Your task to perform on an android device: turn on bluetooth scan Image 0: 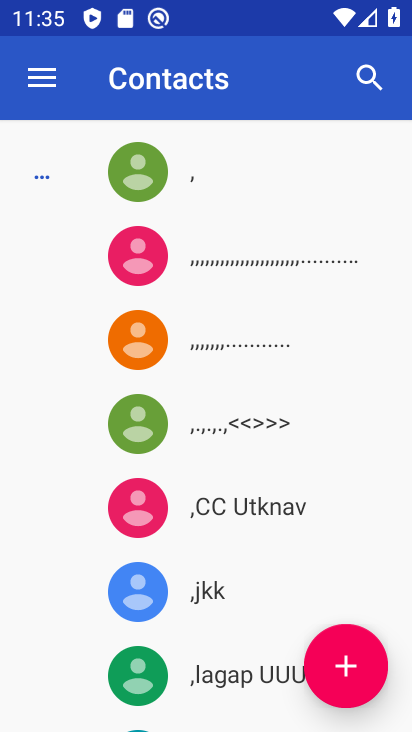
Step 0: press home button
Your task to perform on an android device: turn on bluetooth scan Image 1: 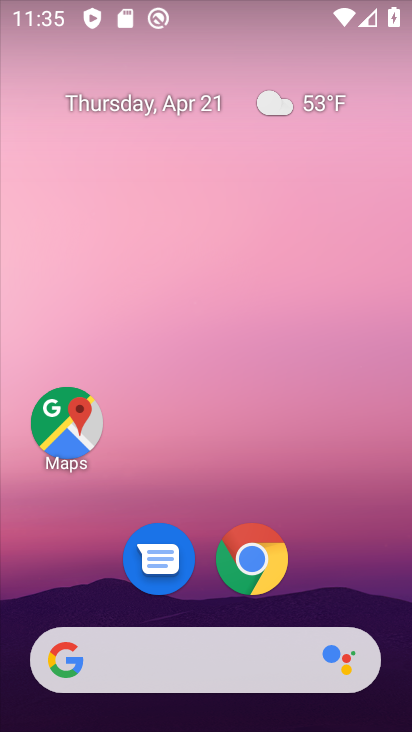
Step 1: drag from (350, 584) to (348, 2)
Your task to perform on an android device: turn on bluetooth scan Image 2: 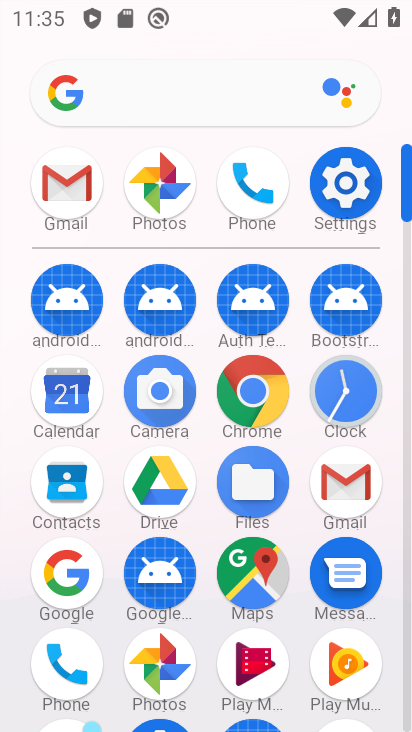
Step 2: click (350, 175)
Your task to perform on an android device: turn on bluetooth scan Image 3: 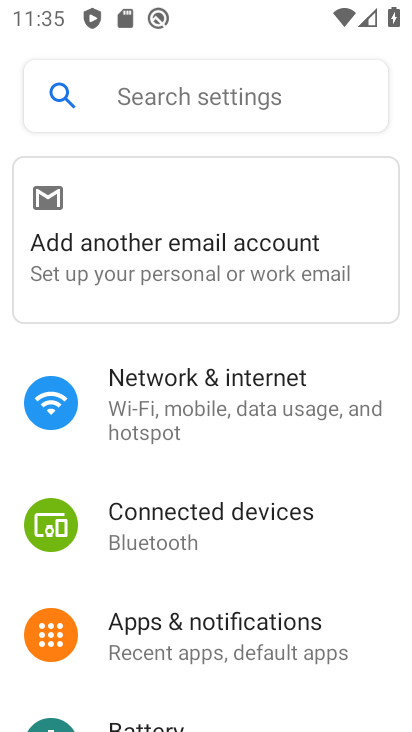
Step 3: drag from (332, 531) to (316, 61)
Your task to perform on an android device: turn on bluetooth scan Image 4: 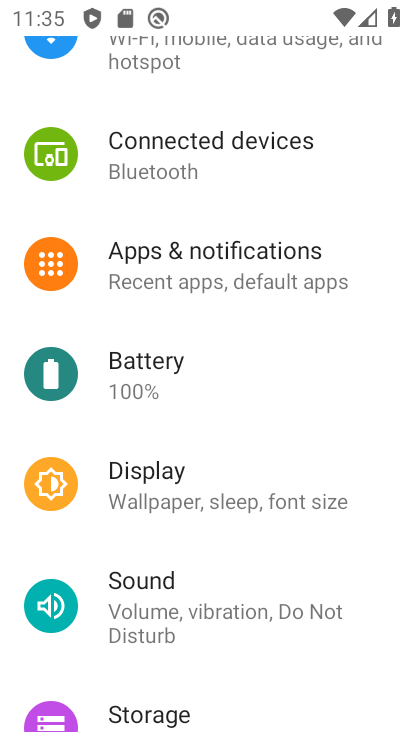
Step 4: drag from (320, 423) to (306, 112)
Your task to perform on an android device: turn on bluetooth scan Image 5: 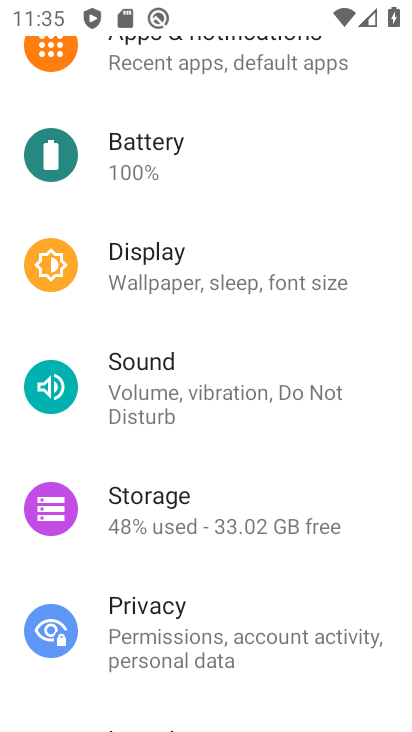
Step 5: drag from (240, 592) to (228, 194)
Your task to perform on an android device: turn on bluetooth scan Image 6: 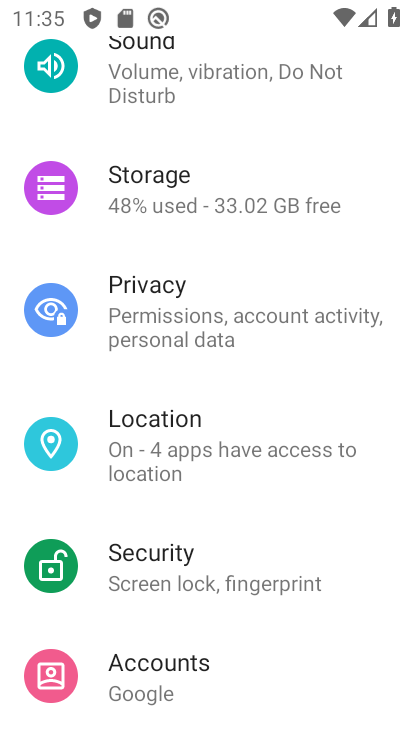
Step 6: click (149, 432)
Your task to perform on an android device: turn on bluetooth scan Image 7: 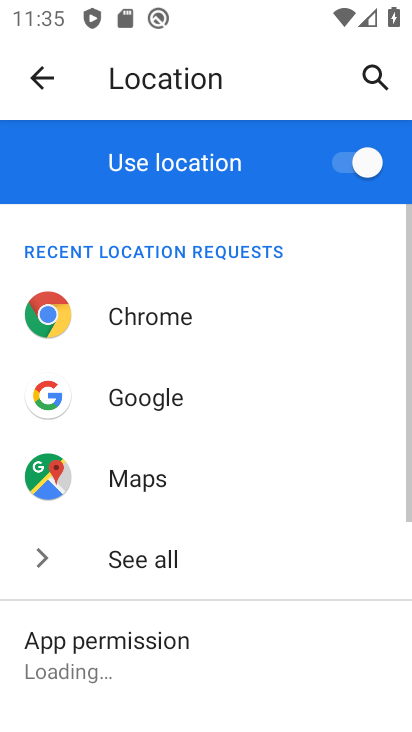
Step 7: drag from (295, 589) to (274, 141)
Your task to perform on an android device: turn on bluetooth scan Image 8: 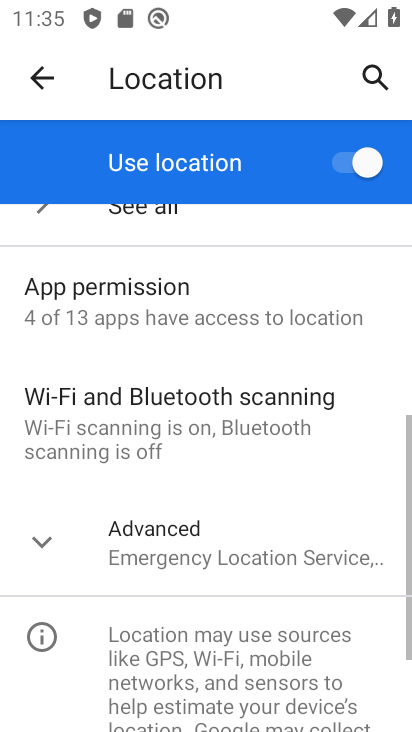
Step 8: click (109, 449)
Your task to perform on an android device: turn on bluetooth scan Image 9: 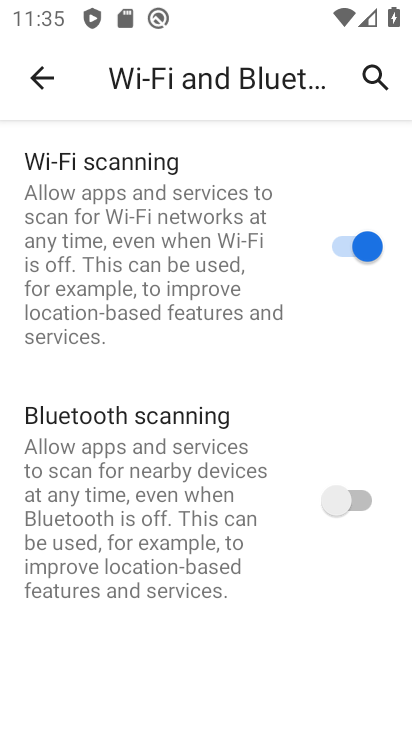
Step 9: click (333, 503)
Your task to perform on an android device: turn on bluetooth scan Image 10: 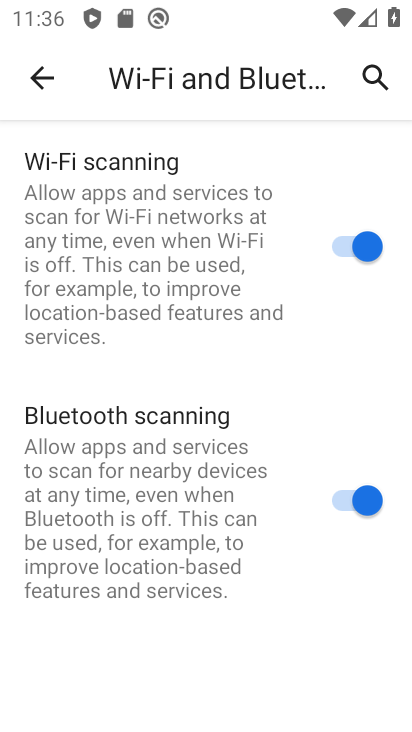
Step 10: task complete